Your task to perform on an android device: Show me popular games on the Play Store Image 0: 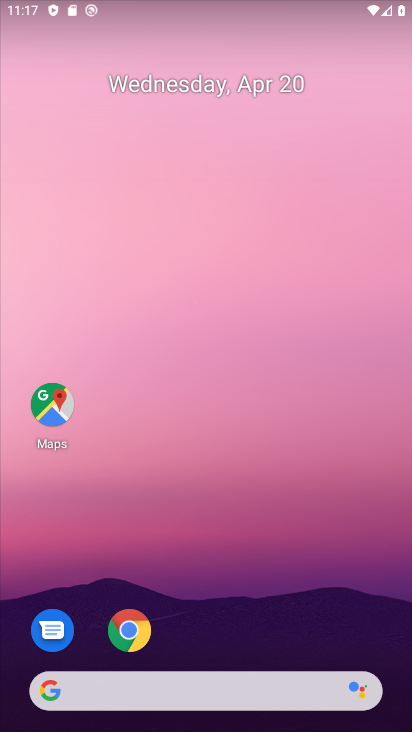
Step 0: drag from (196, 672) to (301, 138)
Your task to perform on an android device: Show me popular games on the Play Store Image 1: 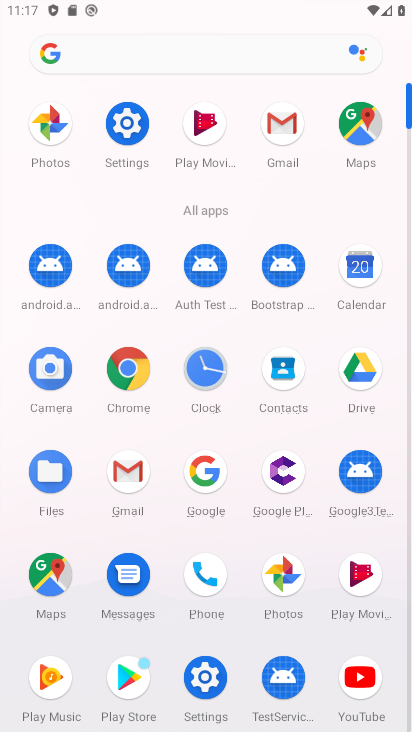
Step 1: click (138, 682)
Your task to perform on an android device: Show me popular games on the Play Store Image 2: 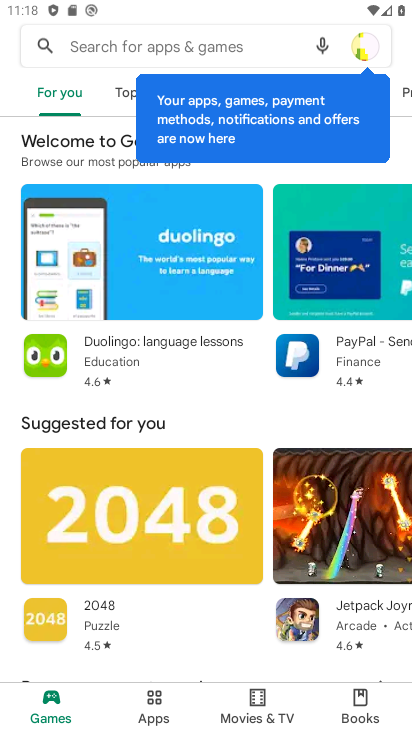
Step 2: drag from (189, 584) to (298, 188)
Your task to perform on an android device: Show me popular games on the Play Store Image 3: 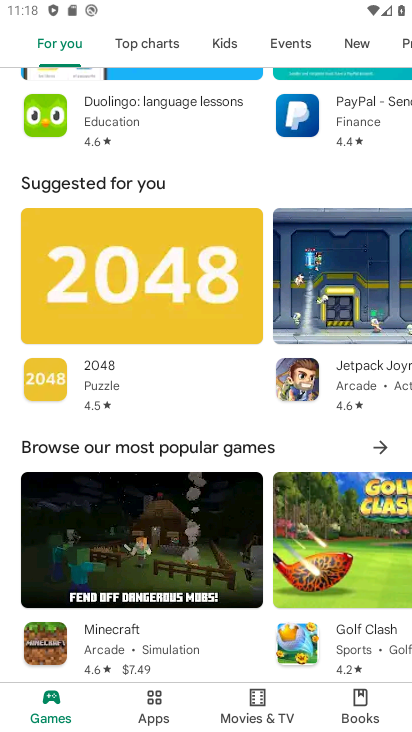
Step 3: click (385, 446)
Your task to perform on an android device: Show me popular games on the Play Store Image 4: 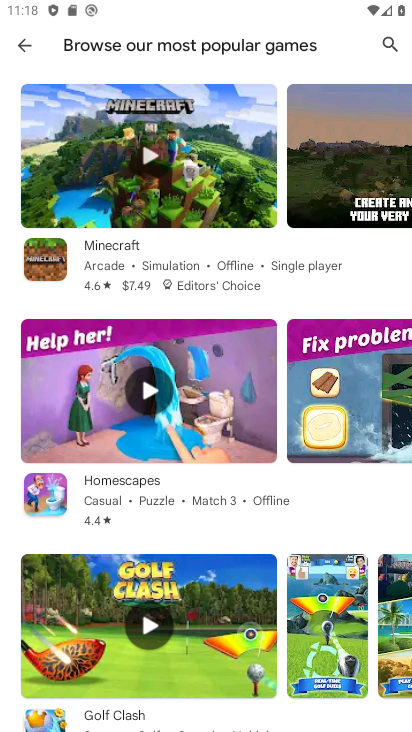
Step 4: task complete